Your task to perform on an android device: Search for vegetarian restaurants on Maps Image 0: 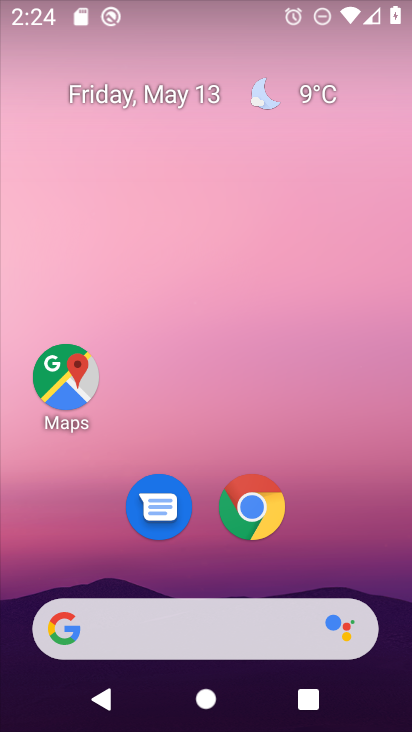
Step 0: drag from (377, 420) to (373, 26)
Your task to perform on an android device: Search for vegetarian restaurants on Maps Image 1: 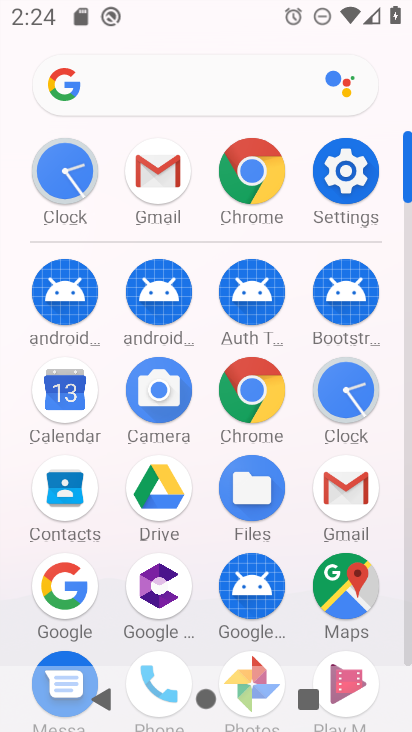
Step 1: click (351, 589)
Your task to perform on an android device: Search for vegetarian restaurants on Maps Image 2: 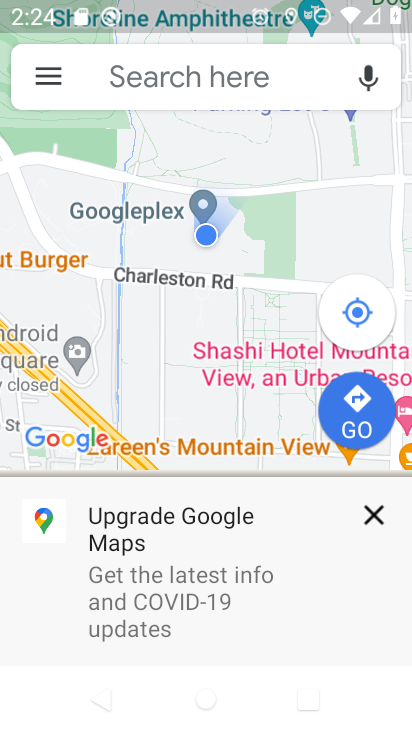
Step 2: click (151, 91)
Your task to perform on an android device: Search for vegetarian restaurants on Maps Image 3: 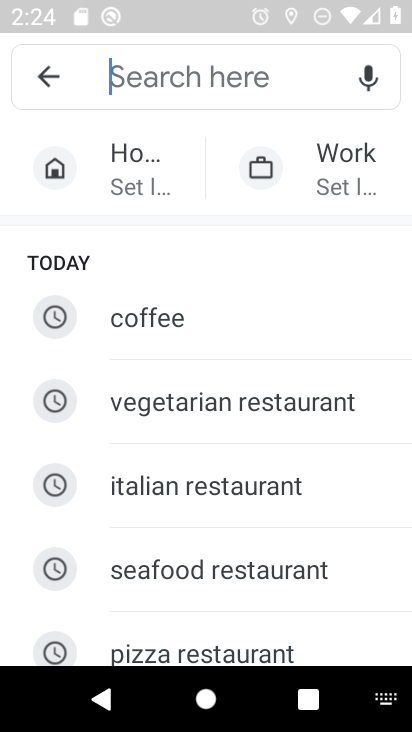
Step 3: click (278, 410)
Your task to perform on an android device: Search for vegetarian restaurants on Maps Image 4: 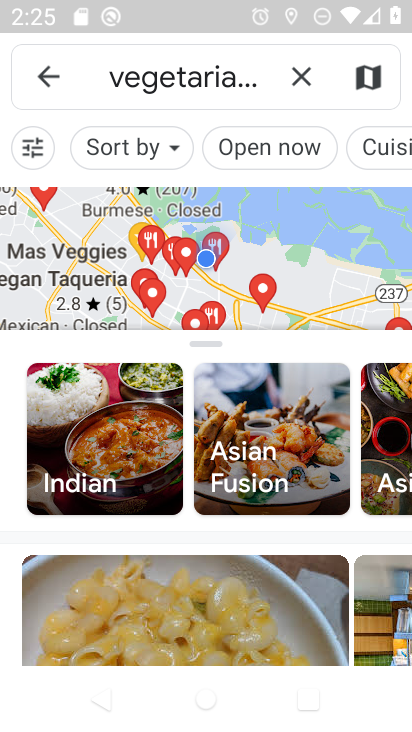
Step 4: task complete